Your task to perform on an android device: Check the weather Image 0: 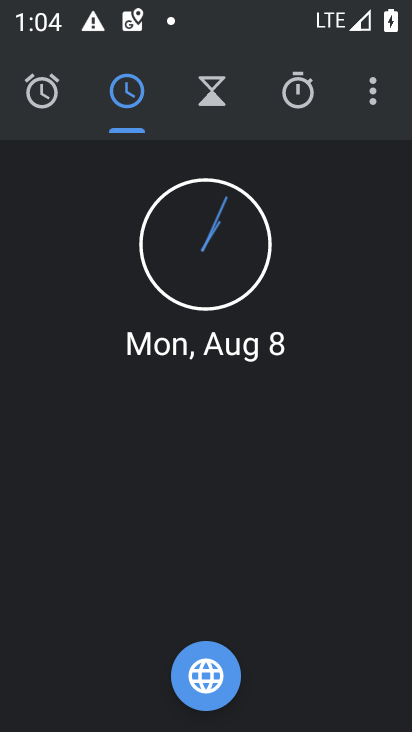
Step 0: press home button
Your task to perform on an android device: Check the weather Image 1: 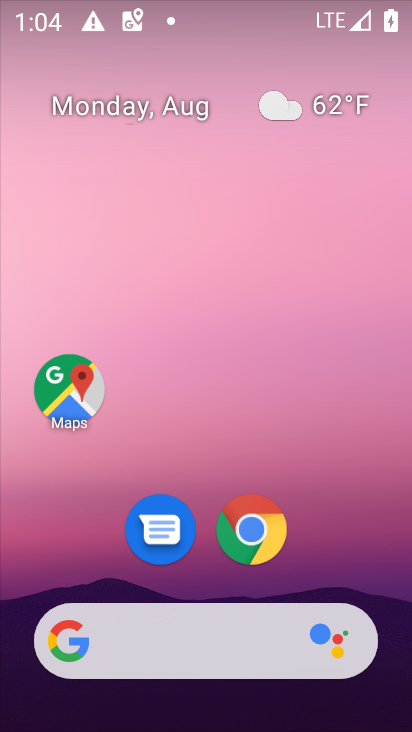
Step 1: drag from (178, 589) to (226, 204)
Your task to perform on an android device: Check the weather Image 2: 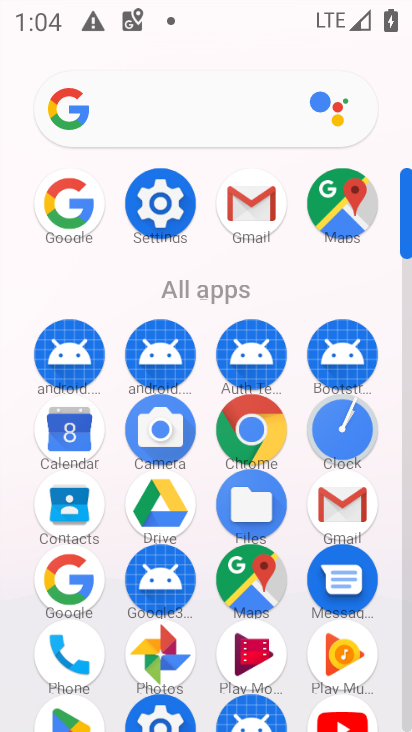
Step 2: click (62, 582)
Your task to perform on an android device: Check the weather Image 3: 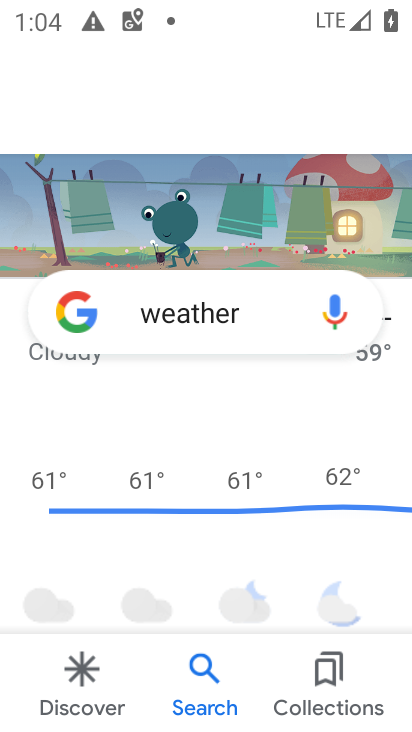
Step 3: drag from (167, 559) to (166, 244)
Your task to perform on an android device: Check the weather Image 4: 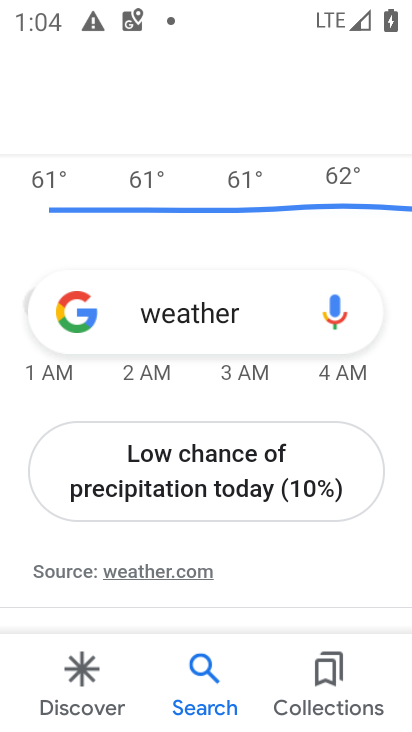
Step 4: click (165, 324)
Your task to perform on an android device: Check the weather Image 5: 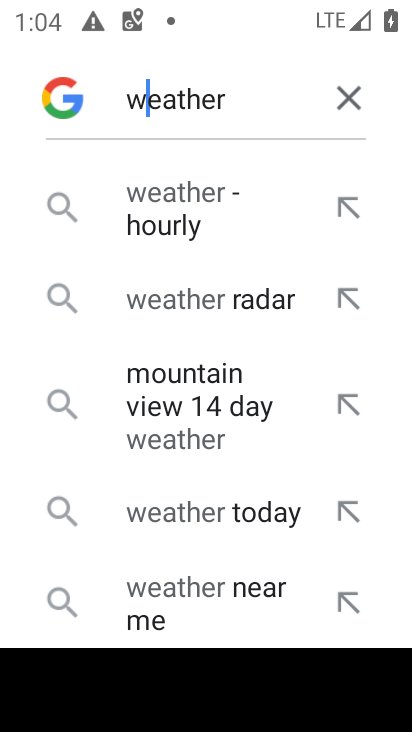
Step 5: click (188, 509)
Your task to perform on an android device: Check the weather Image 6: 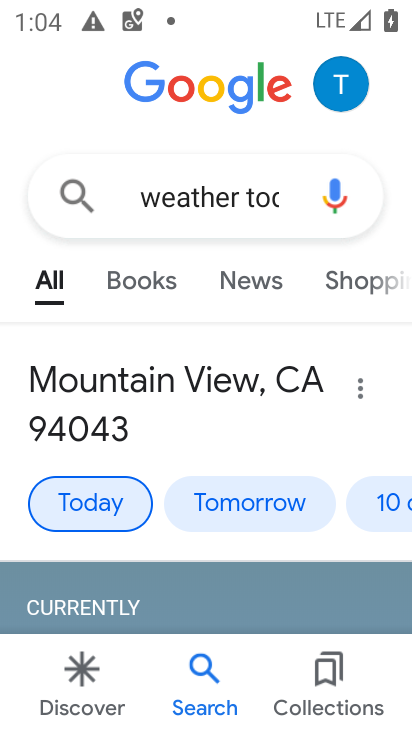
Step 6: task complete